Your task to perform on an android device: open app "Nova Launcher" Image 0: 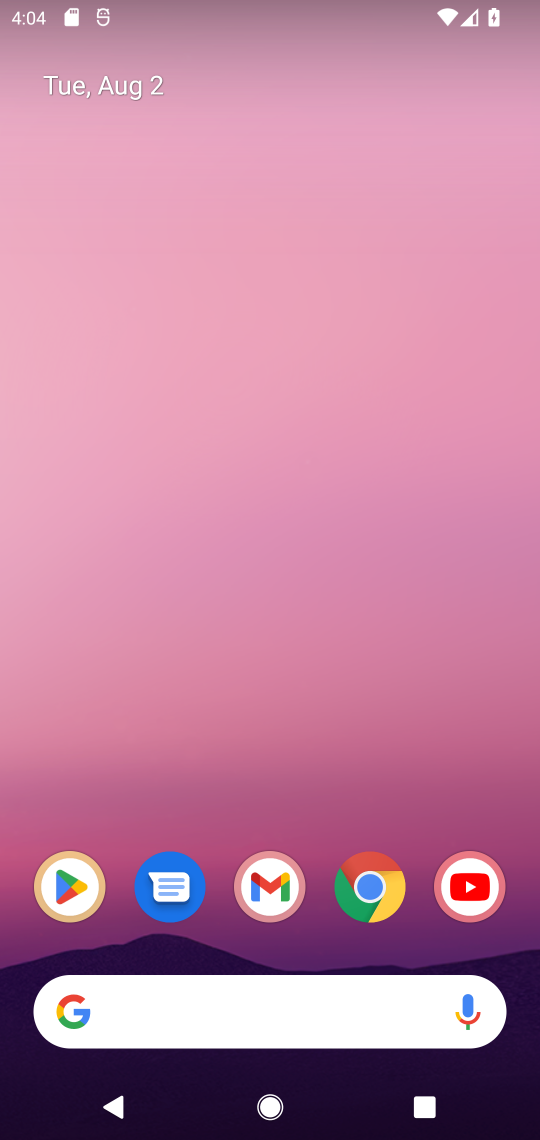
Step 0: click (55, 897)
Your task to perform on an android device: open app "Nova Launcher" Image 1: 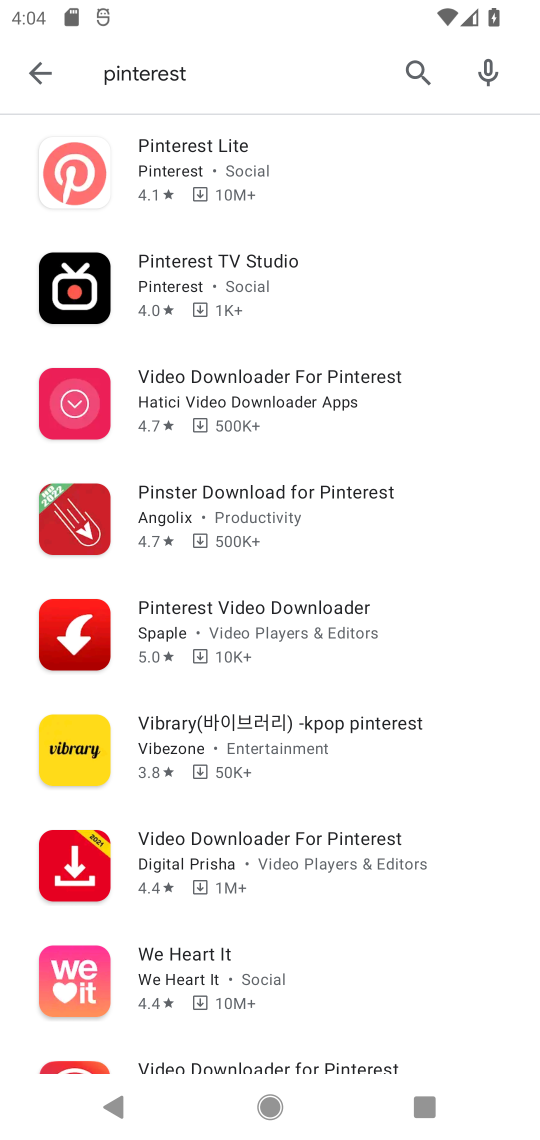
Step 1: click (41, 84)
Your task to perform on an android device: open app "Nova Launcher" Image 2: 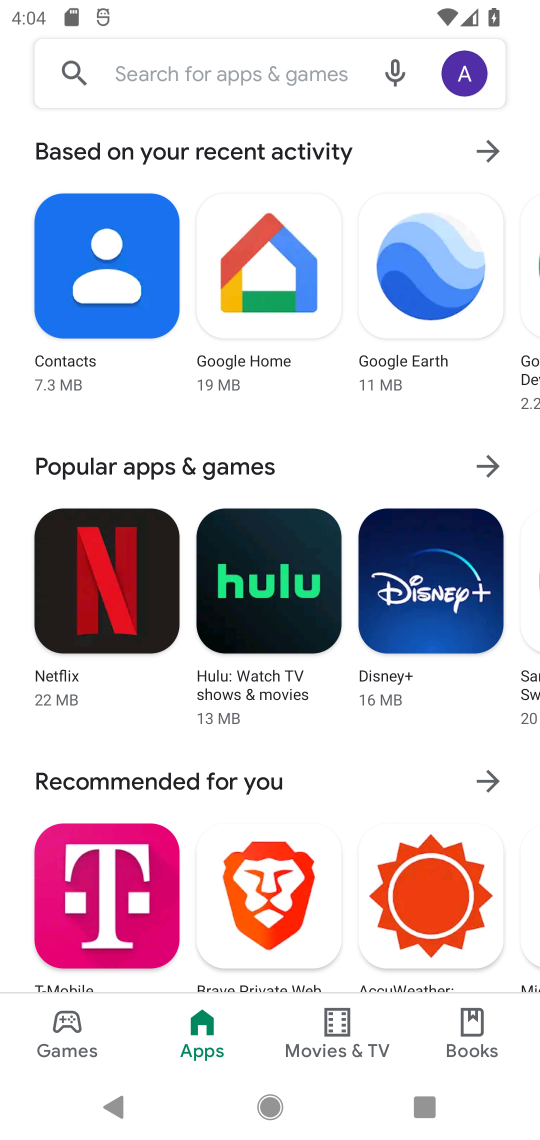
Step 2: click (165, 66)
Your task to perform on an android device: open app "Nova Launcher" Image 3: 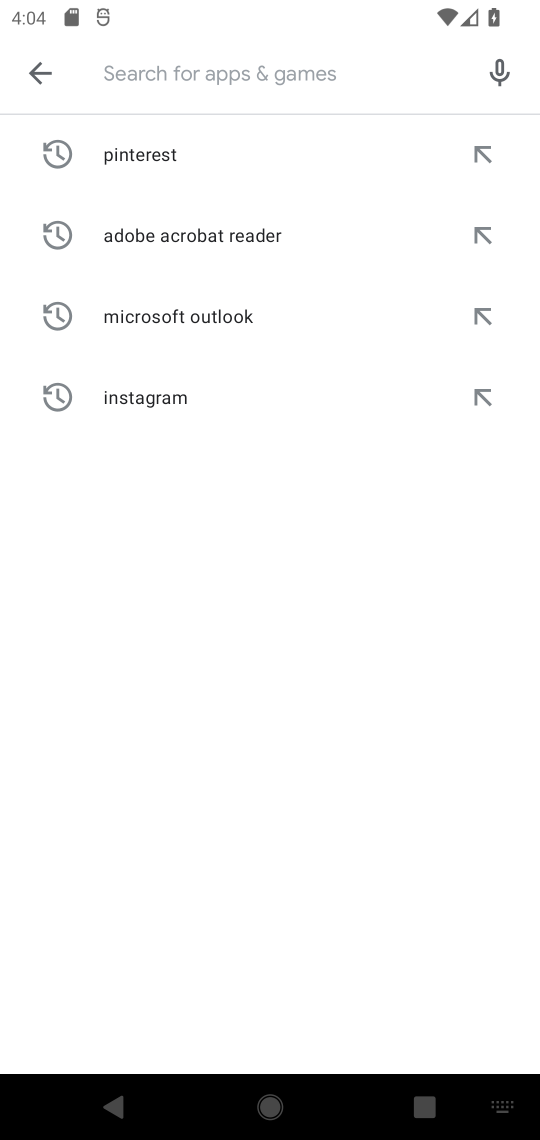
Step 3: type "Nova Launcher"
Your task to perform on an android device: open app "Nova Launcher" Image 4: 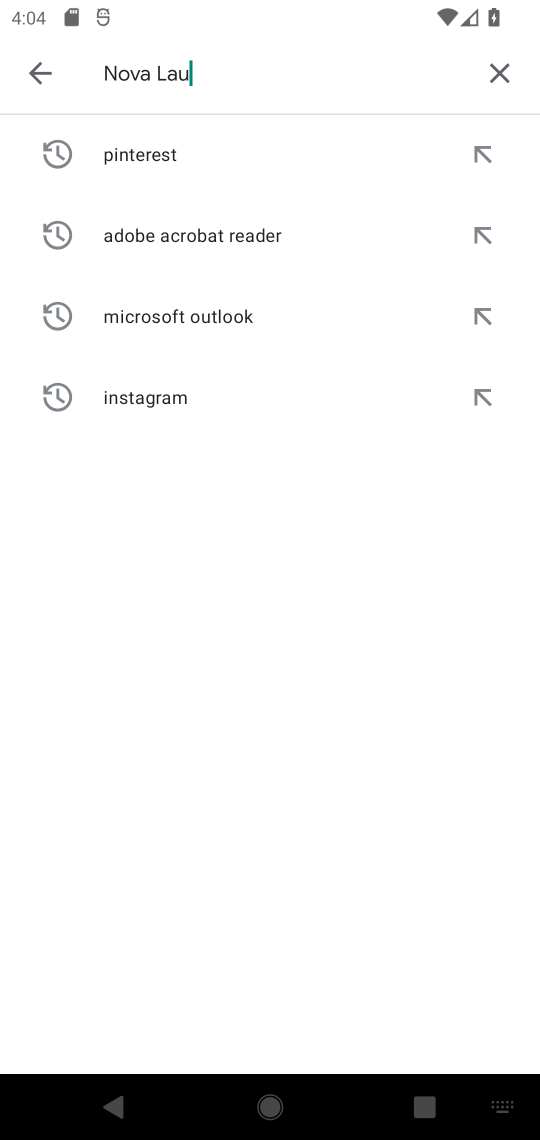
Step 4: type ""
Your task to perform on an android device: open app "Nova Launcher" Image 5: 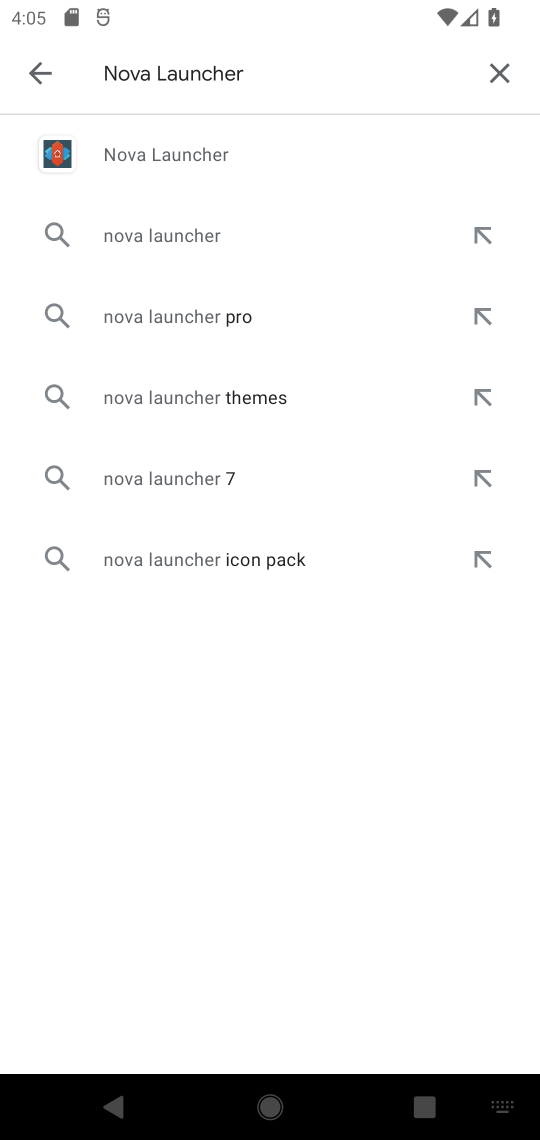
Step 5: click (160, 141)
Your task to perform on an android device: open app "Nova Launcher" Image 6: 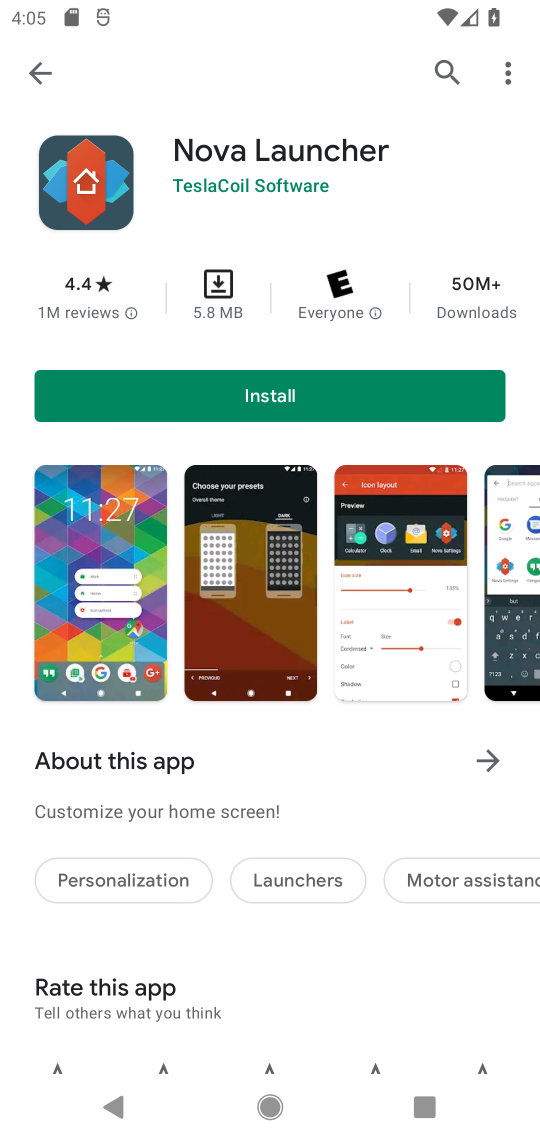
Step 6: task complete